Your task to perform on an android device: What's the weather going to be tomorrow? Image 0: 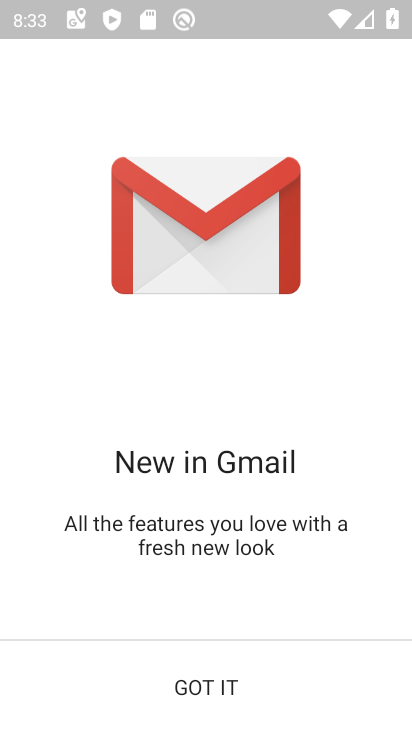
Step 0: press home button
Your task to perform on an android device: What's the weather going to be tomorrow? Image 1: 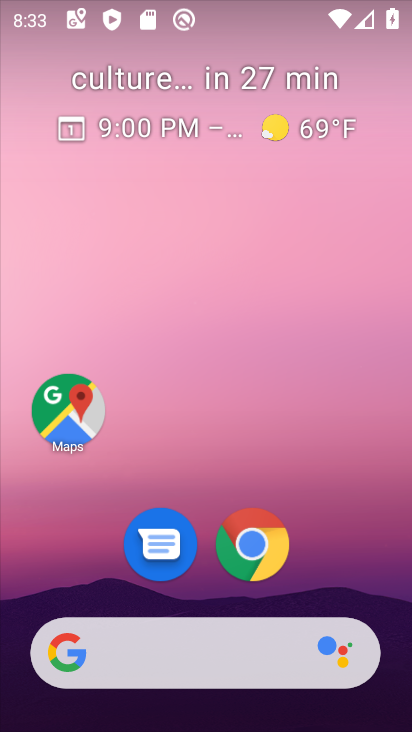
Step 1: click (255, 543)
Your task to perform on an android device: What's the weather going to be tomorrow? Image 2: 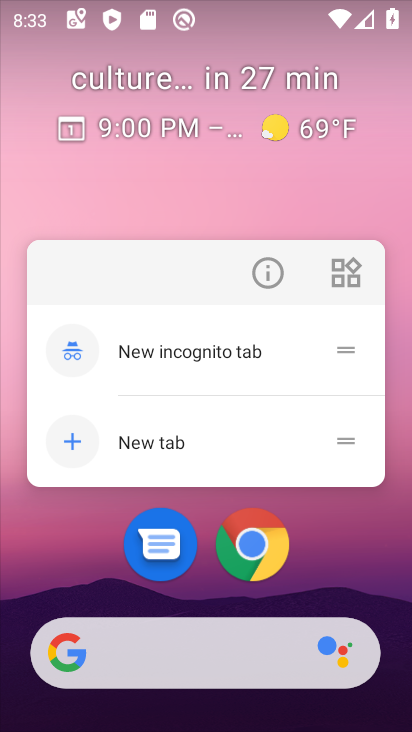
Step 2: click (278, 271)
Your task to perform on an android device: What's the weather going to be tomorrow? Image 3: 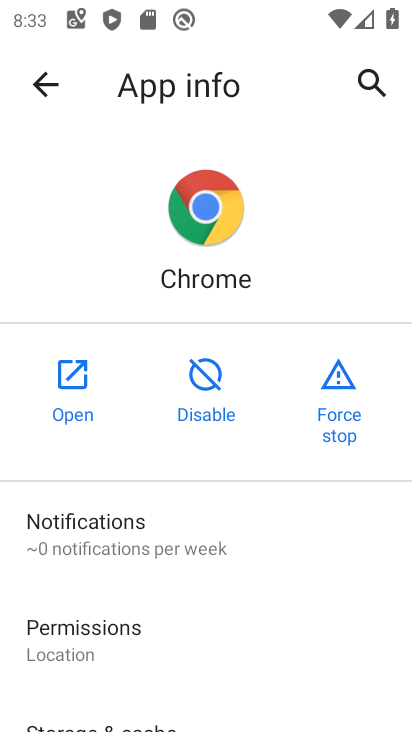
Step 3: click (80, 379)
Your task to perform on an android device: What's the weather going to be tomorrow? Image 4: 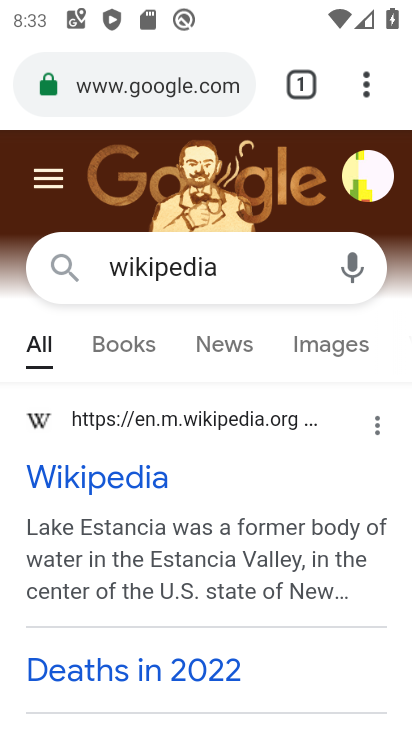
Step 4: click (147, 88)
Your task to perform on an android device: What's the weather going to be tomorrow? Image 5: 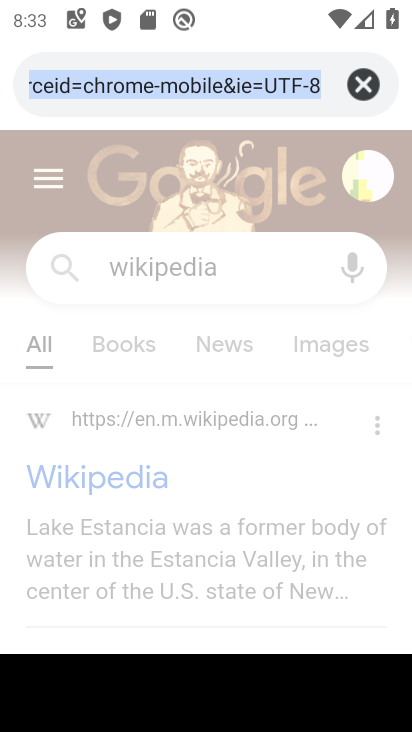
Step 5: type "What's the weather going to be tomorrow?"
Your task to perform on an android device: What's the weather going to be tomorrow? Image 6: 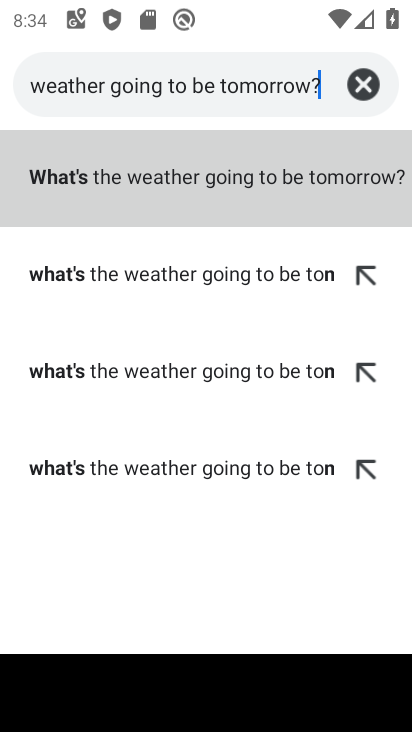
Step 6: click (255, 189)
Your task to perform on an android device: What's the weather going to be tomorrow? Image 7: 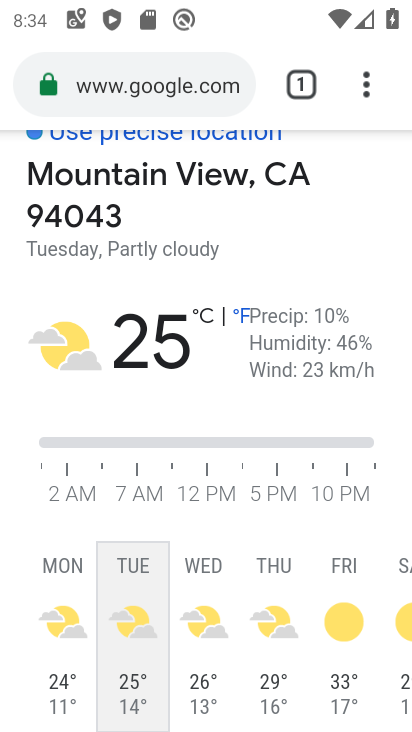
Step 7: task complete